Your task to perform on an android device: Go to wifi settings Image 0: 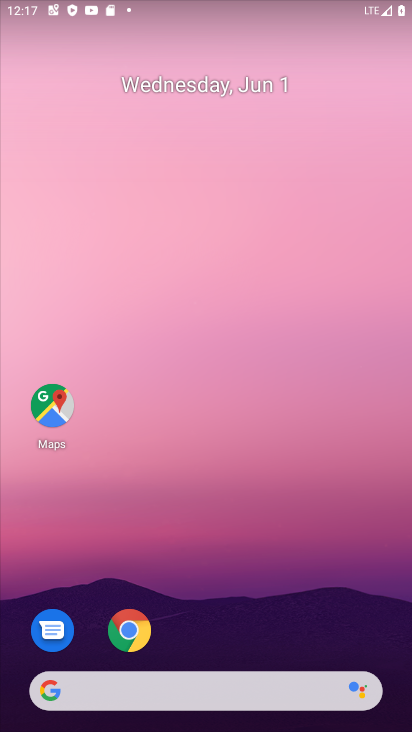
Step 0: drag from (304, 541) to (282, 142)
Your task to perform on an android device: Go to wifi settings Image 1: 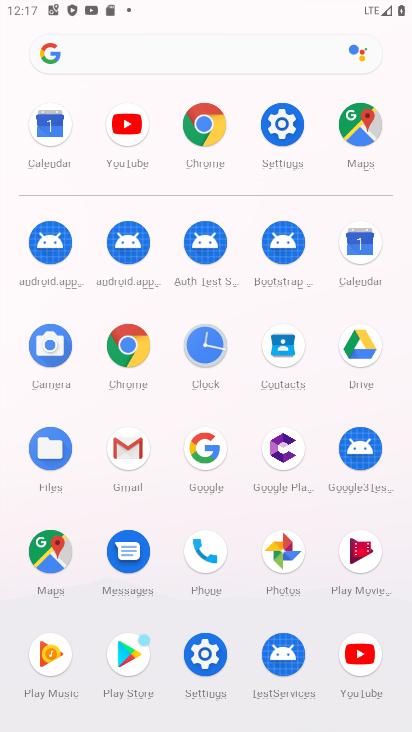
Step 1: click (277, 119)
Your task to perform on an android device: Go to wifi settings Image 2: 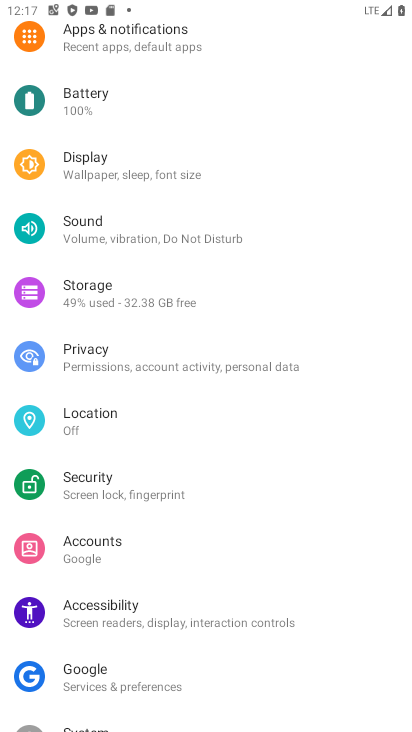
Step 2: drag from (368, 53) to (365, 599)
Your task to perform on an android device: Go to wifi settings Image 3: 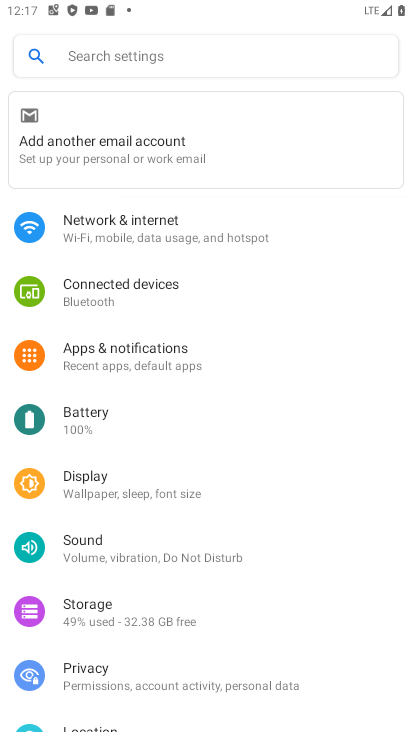
Step 3: click (162, 233)
Your task to perform on an android device: Go to wifi settings Image 4: 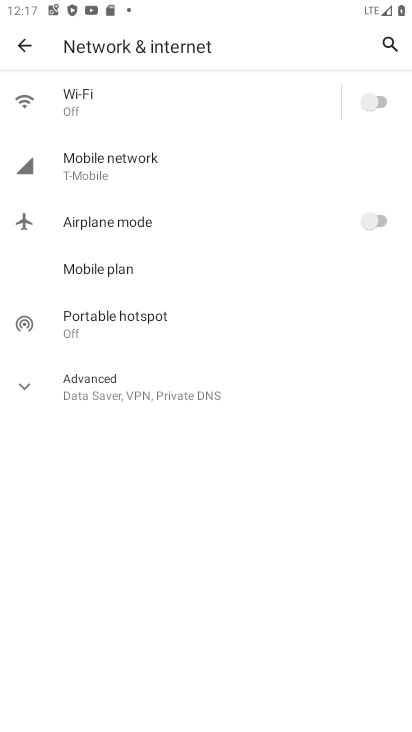
Step 4: click (151, 102)
Your task to perform on an android device: Go to wifi settings Image 5: 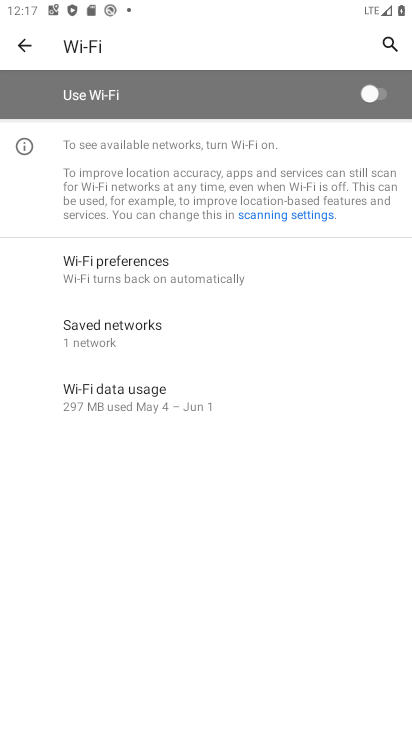
Step 5: task complete